Your task to perform on an android device: Clear the shopping cart on amazon.com. Image 0: 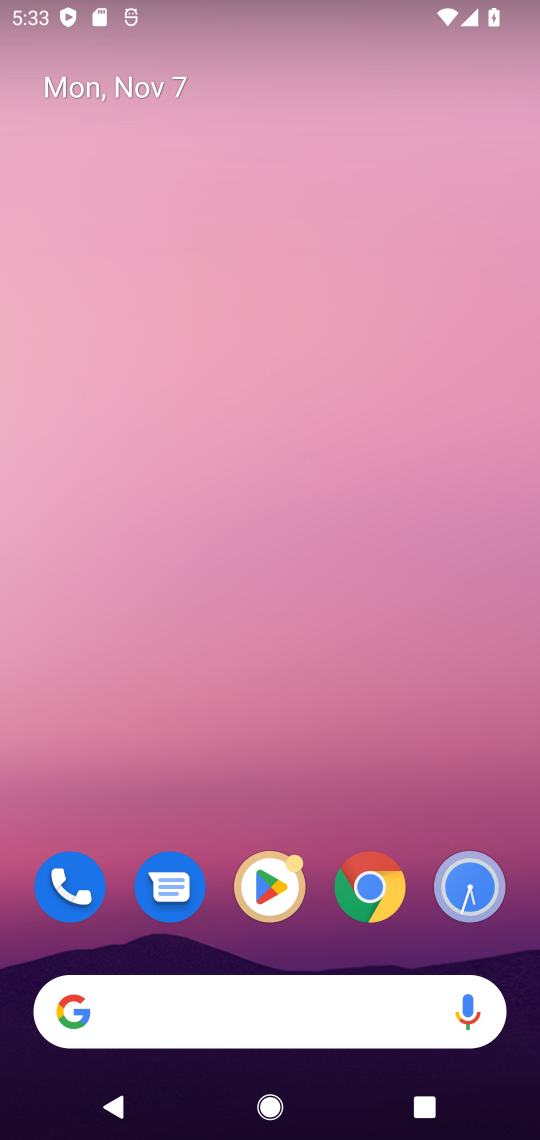
Step 0: click (372, 916)
Your task to perform on an android device: Clear the shopping cart on amazon.com. Image 1: 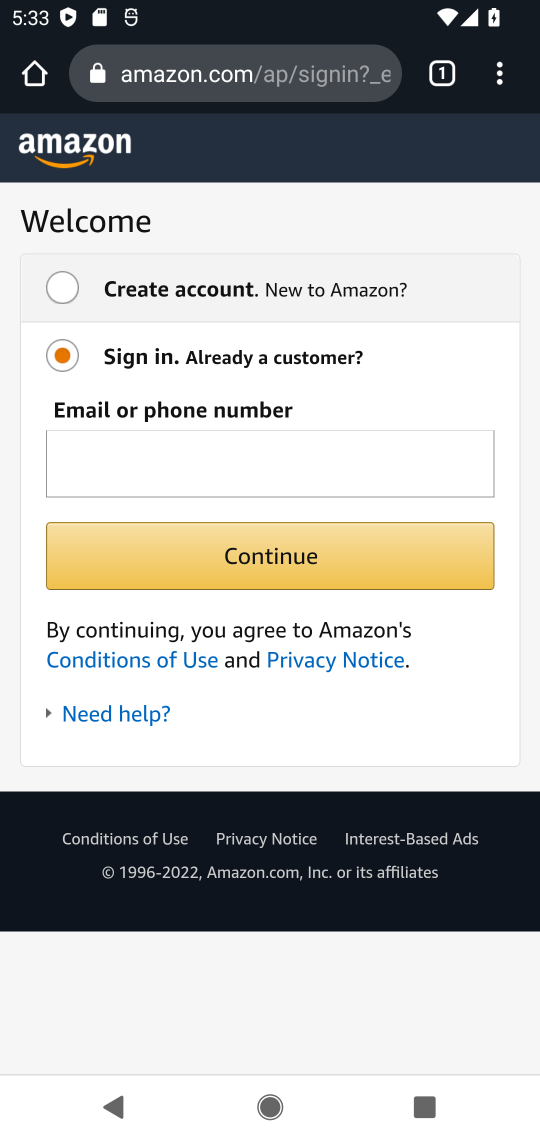
Step 1: press back button
Your task to perform on an android device: Clear the shopping cart on amazon.com. Image 2: 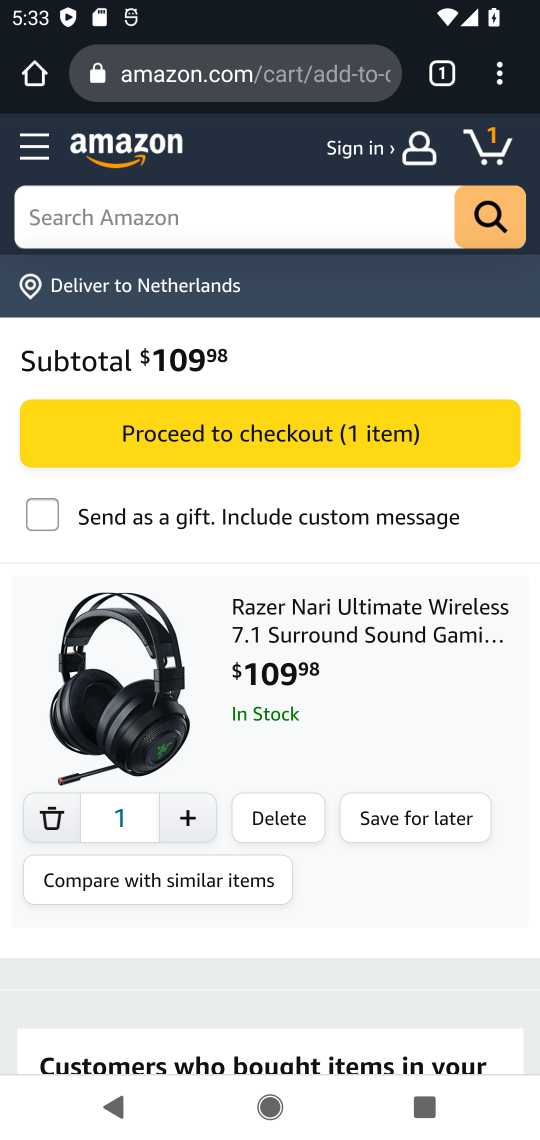
Step 2: click (277, 810)
Your task to perform on an android device: Clear the shopping cart on amazon.com. Image 3: 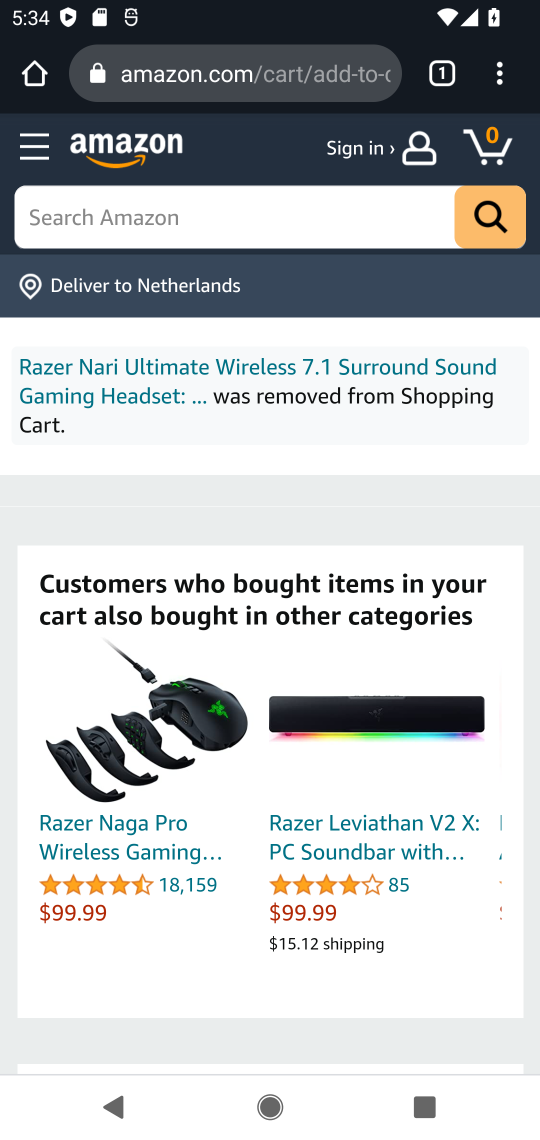
Step 3: task complete